Your task to perform on an android device: change the clock style Image 0: 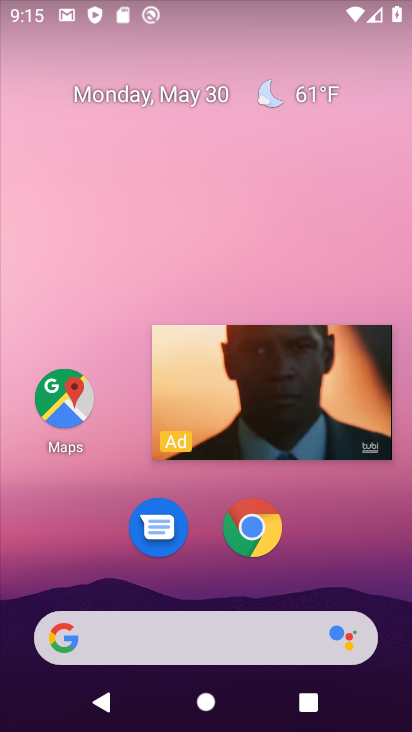
Step 0: drag from (214, 398) to (73, 719)
Your task to perform on an android device: change the clock style Image 1: 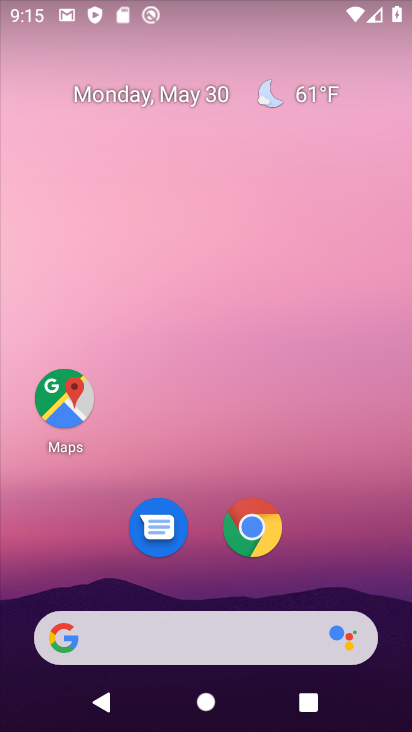
Step 1: drag from (213, 526) to (269, 4)
Your task to perform on an android device: change the clock style Image 2: 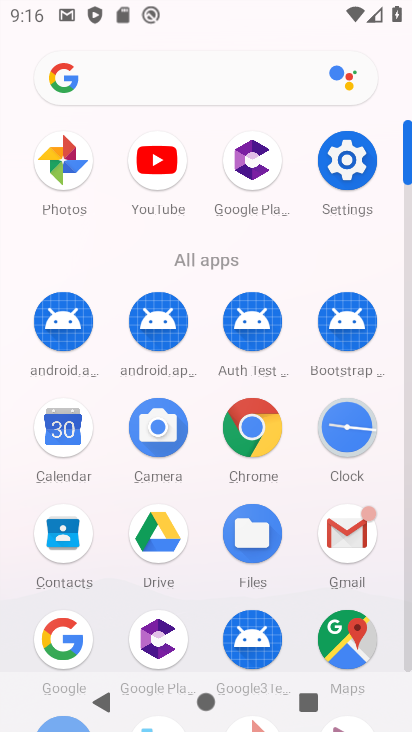
Step 2: click (335, 437)
Your task to perform on an android device: change the clock style Image 3: 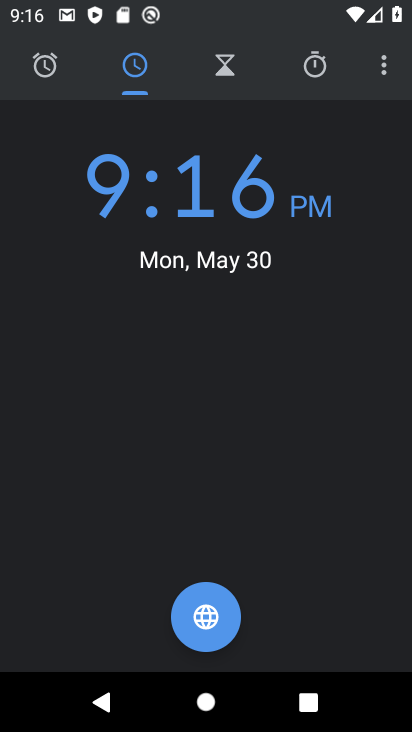
Step 3: click (390, 38)
Your task to perform on an android device: change the clock style Image 4: 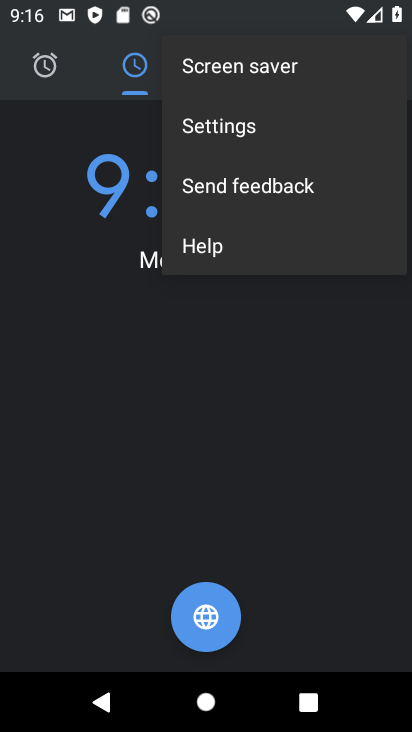
Step 4: click (259, 131)
Your task to perform on an android device: change the clock style Image 5: 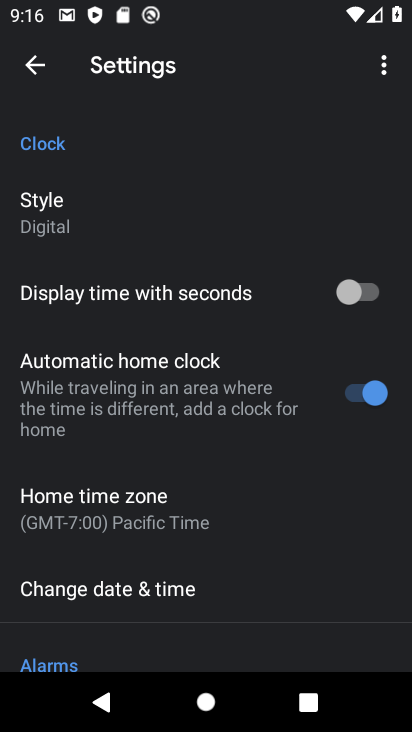
Step 5: click (53, 238)
Your task to perform on an android device: change the clock style Image 6: 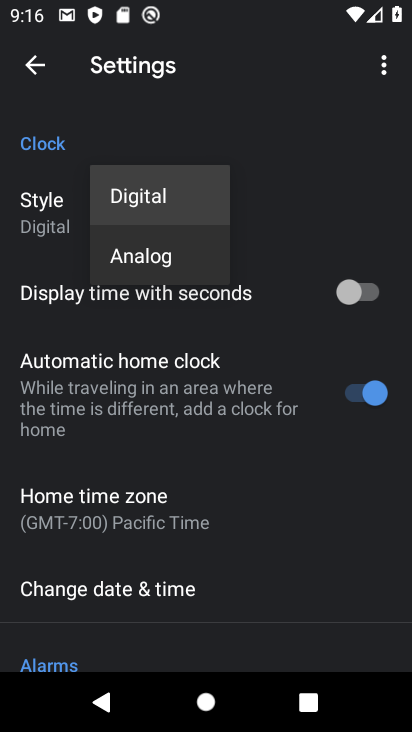
Step 6: click (194, 259)
Your task to perform on an android device: change the clock style Image 7: 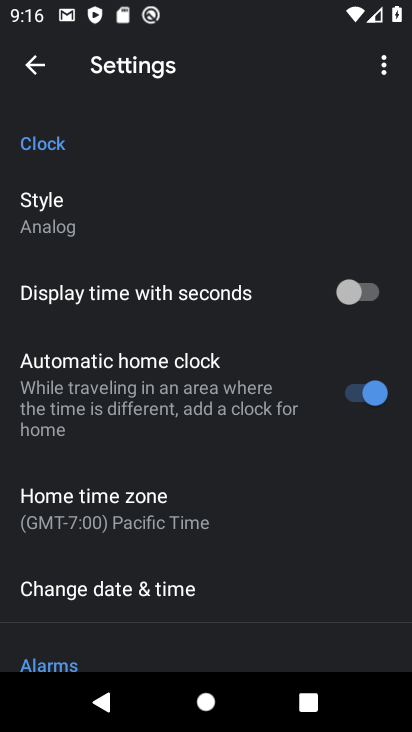
Step 7: task complete